Your task to perform on an android device: Do I have any events tomorrow? Image 0: 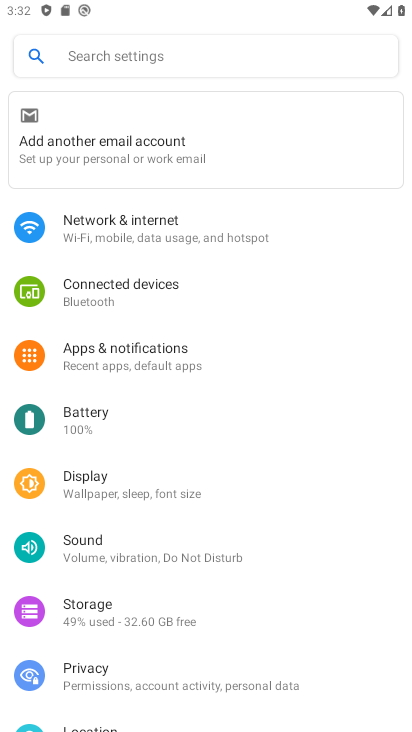
Step 0: press back button
Your task to perform on an android device: Do I have any events tomorrow? Image 1: 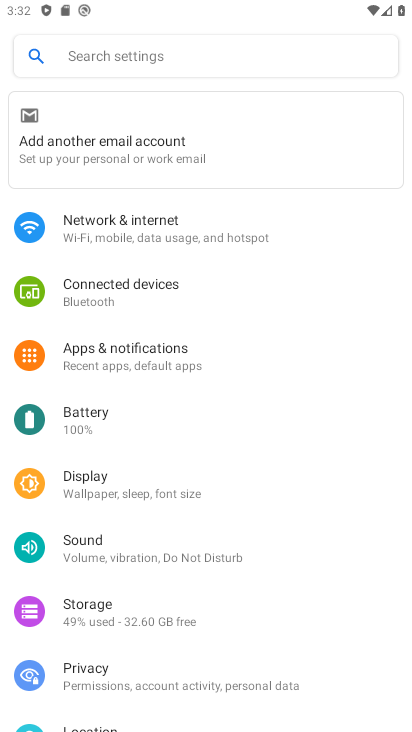
Step 1: press back button
Your task to perform on an android device: Do I have any events tomorrow? Image 2: 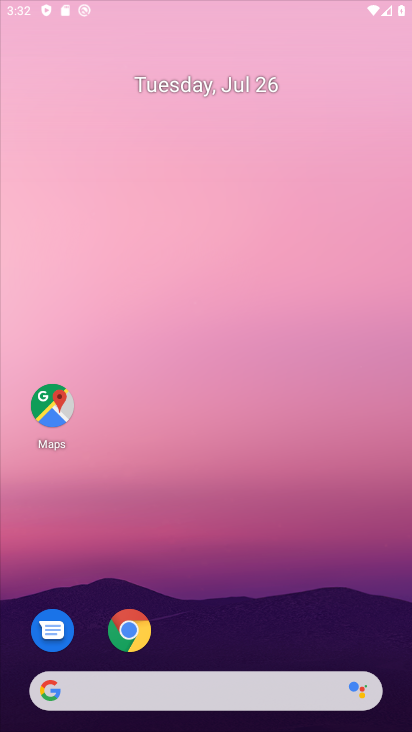
Step 2: press back button
Your task to perform on an android device: Do I have any events tomorrow? Image 3: 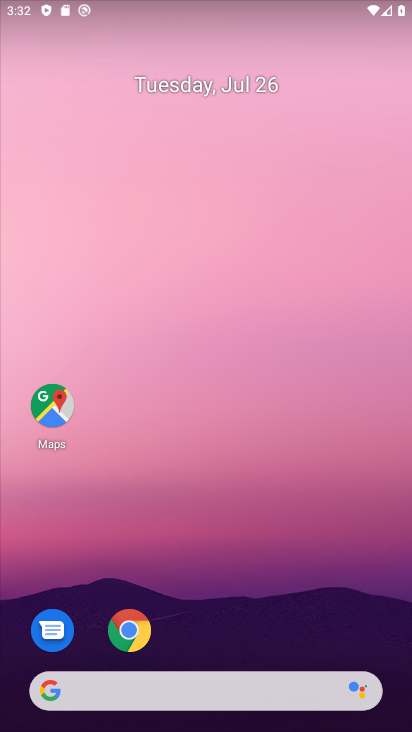
Step 3: drag from (197, 642) to (136, 107)
Your task to perform on an android device: Do I have any events tomorrow? Image 4: 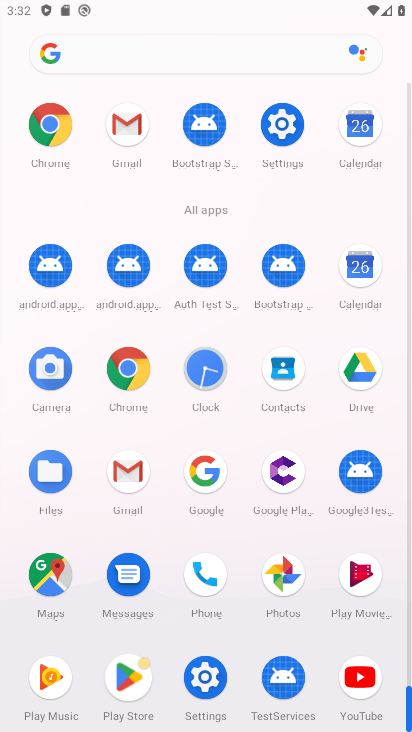
Step 4: click (363, 273)
Your task to perform on an android device: Do I have any events tomorrow? Image 5: 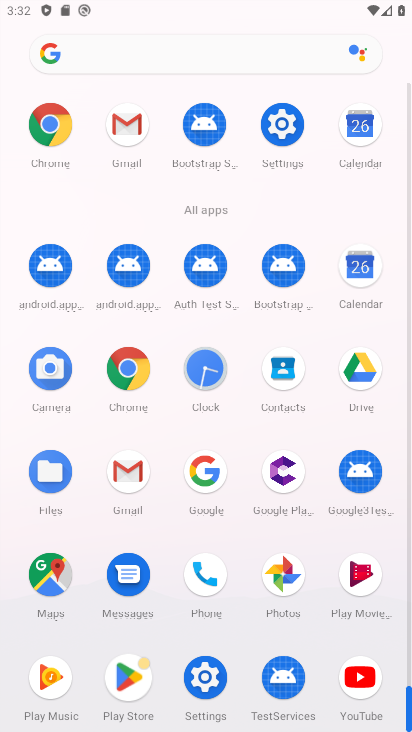
Step 5: click (361, 274)
Your task to perform on an android device: Do I have any events tomorrow? Image 6: 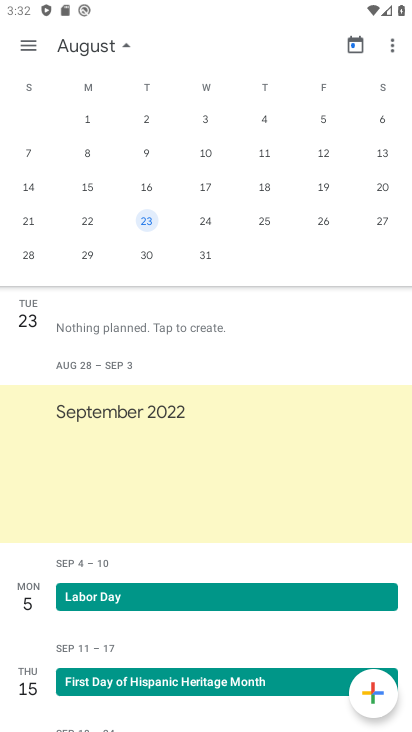
Step 6: task complete